Your task to perform on an android device: visit the assistant section in the google photos Image 0: 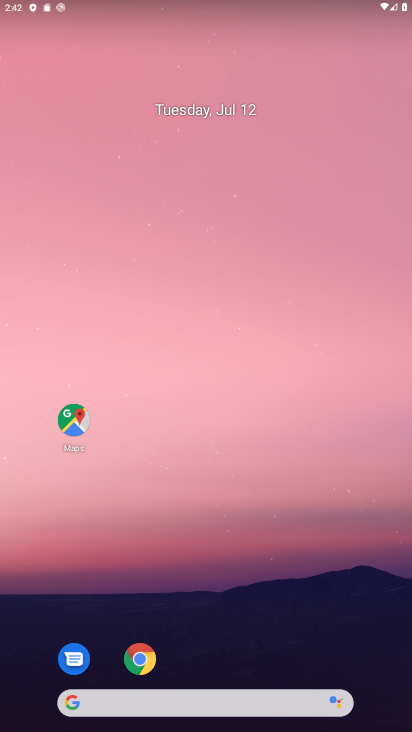
Step 0: drag from (274, 653) to (218, 281)
Your task to perform on an android device: visit the assistant section in the google photos Image 1: 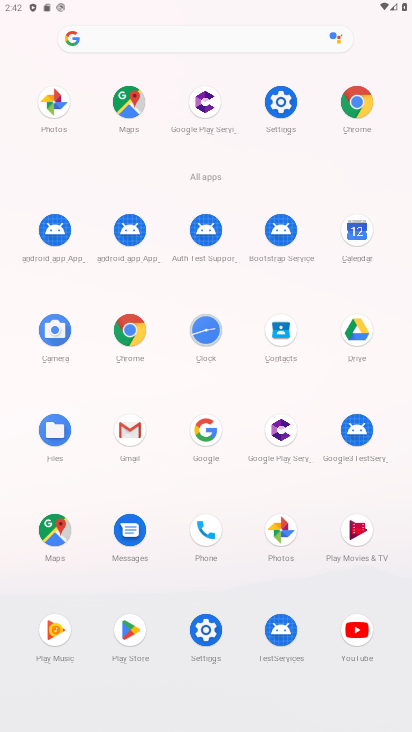
Step 1: click (281, 537)
Your task to perform on an android device: visit the assistant section in the google photos Image 2: 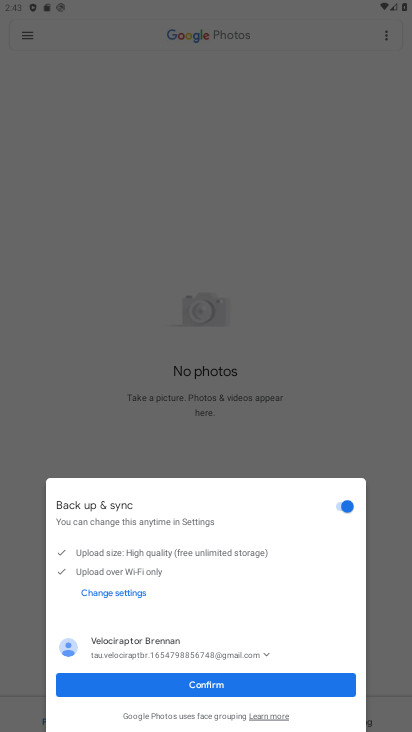
Step 2: click (267, 8)
Your task to perform on an android device: visit the assistant section in the google photos Image 3: 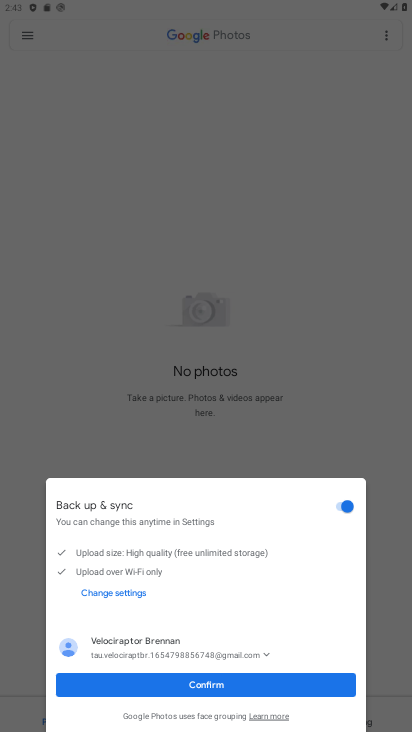
Step 3: click (275, 258)
Your task to perform on an android device: visit the assistant section in the google photos Image 4: 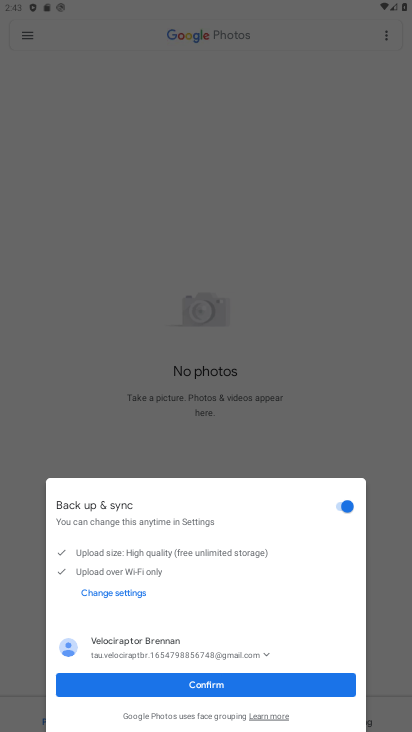
Step 4: click (277, 257)
Your task to perform on an android device: visit the assistant section in the google photos Image 5: 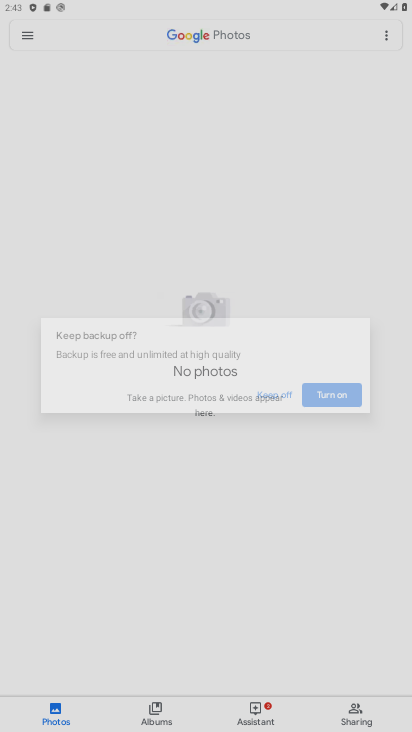
Step 5: click (310, 333)
Your task to perform on an android device: visit the assistant section in the google photos Image 6: 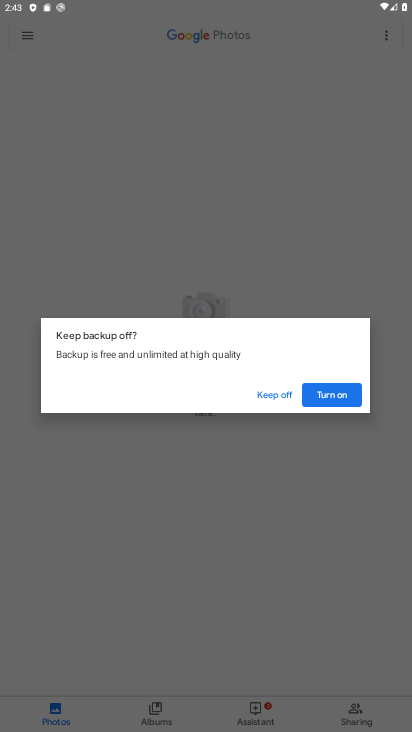
Step 6: click (310, 334)
Your task to perform on an android device: visit the assistant section in the google photos Image 7: 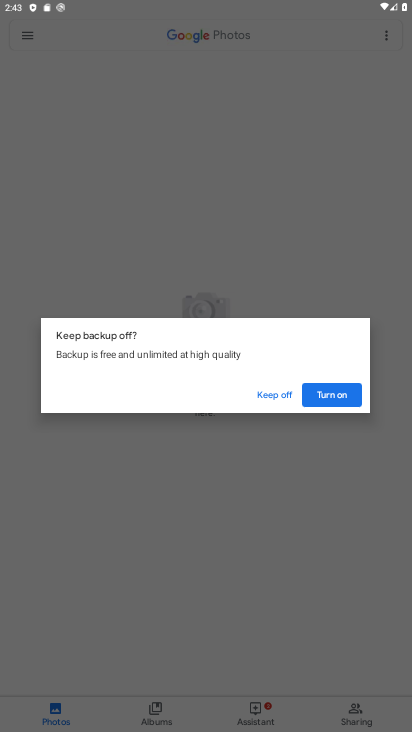
Step 7: click (256, 390)
Your task to perform on an android device: visit the assistant section in the google photos Image 8: 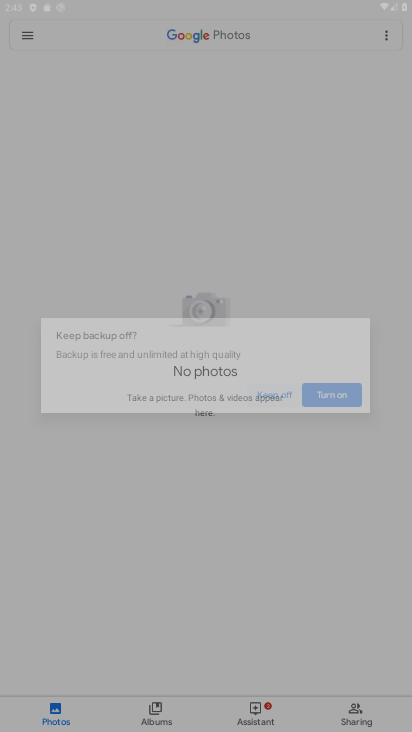
Step 8: click (257, 390)
Your task to perform on an android device: visit the assistant section in the google photos Image 9: 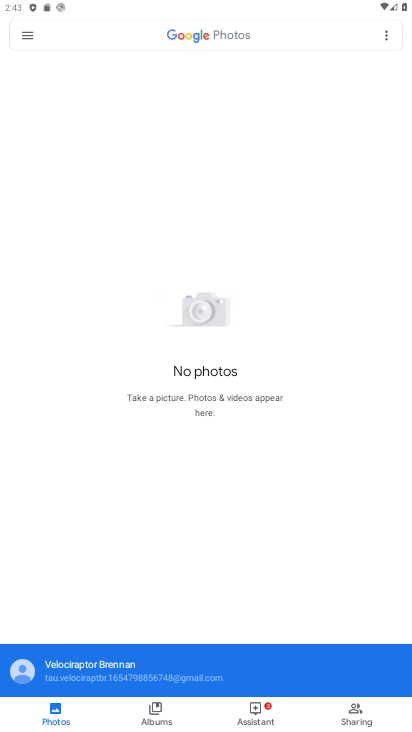
Step 9: click (264, 395)
Your task to perform on an android device: visit the assistant section in the google photos Image 10: 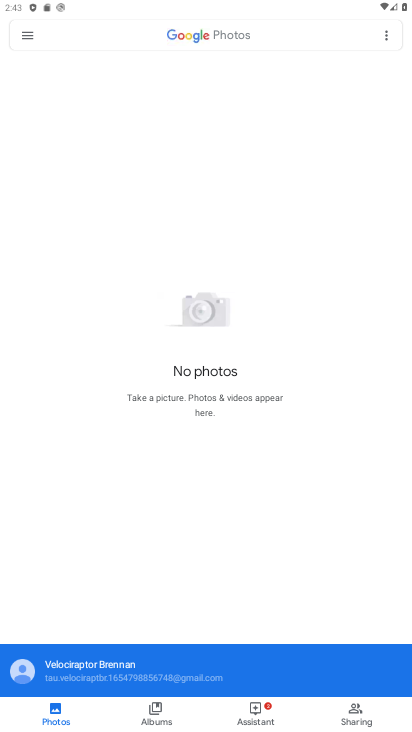
Step 10: drag from (271, 600) to (237, 7)
Your task to perform on an android device: visit the assistant section in the google photos Image 11: 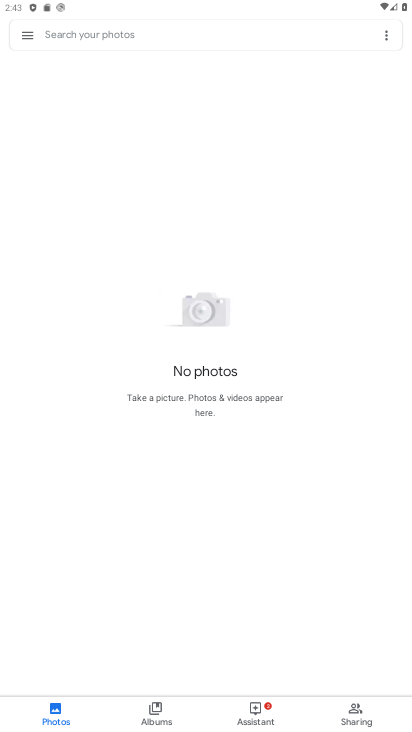
Step 11: click (255, 713)
Your task to perform on an android device: visit the assistant section in the google photos Image 12: 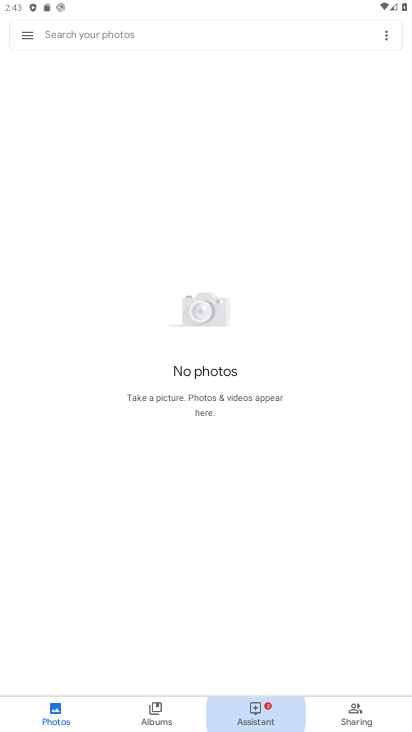
Step 12: click (254, 714)
Your task to perform on an android device: visit the assistant section in the google photos Image 13: 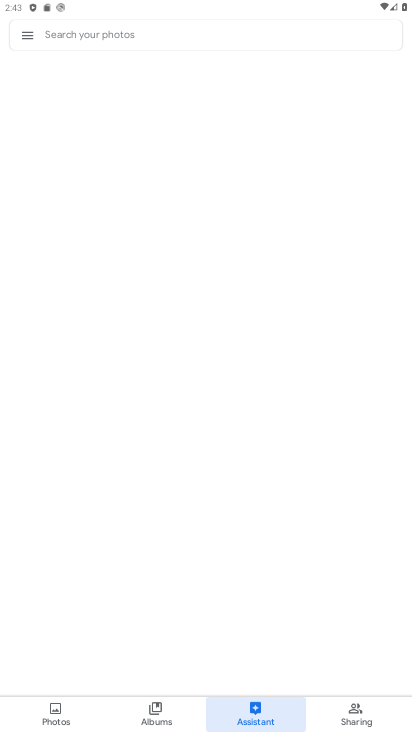
Step 13: click (254, 715)
Your task to perform on an android device: visit the assistant section in the google photos Image 14: 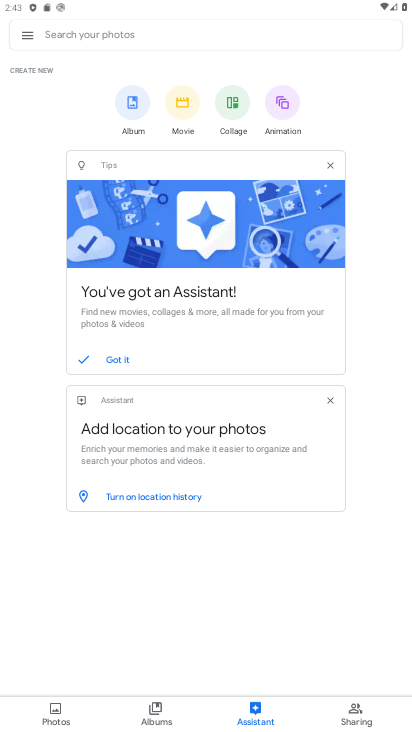
Step 14: task complete